Your task to perform on an android device: change text size in settings app Image 0: 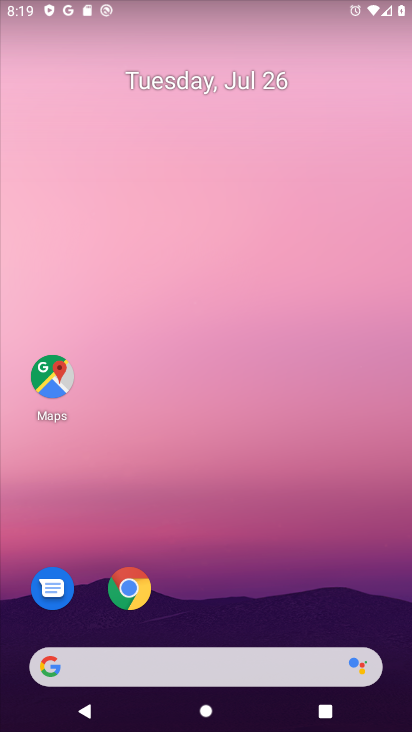
Step 0: drag from (201, 652) to (257, 257)
Your task to perform on an android device: change text size in settings app Image 1: 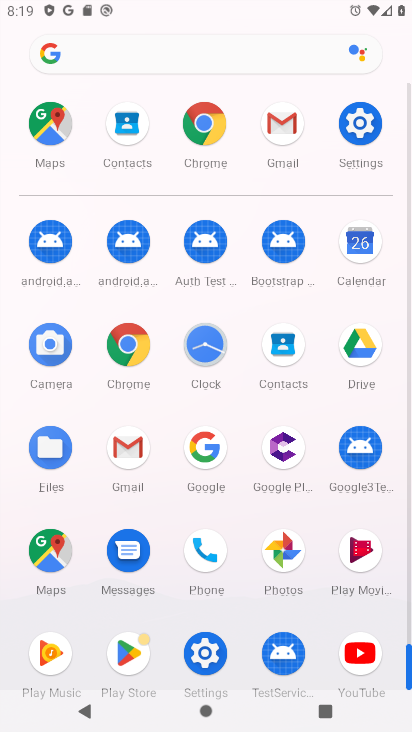
Step 1: click (366, 137)
Your task to perform on an android device: change text size in settings app Image 2: 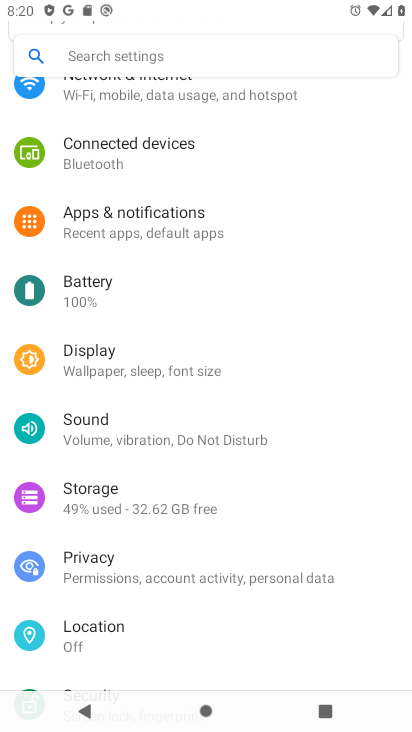
Step 2: click (93, 368)
Your task to perform on an android device: change text size in settings app Image 3: 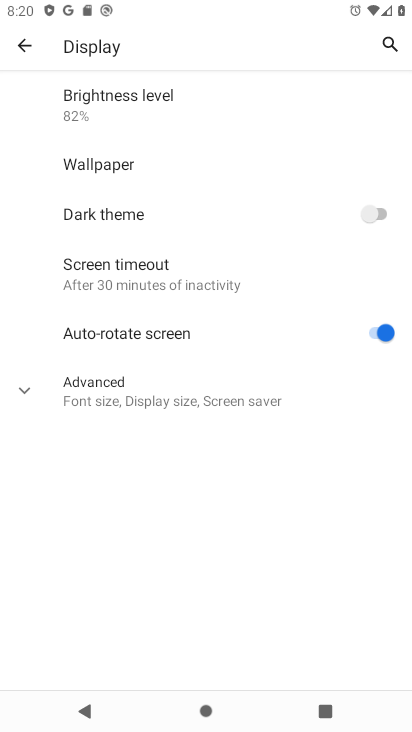
Step 3: click (132, 403)
Your task to perform on an android device: change text size in settings app Image 4: 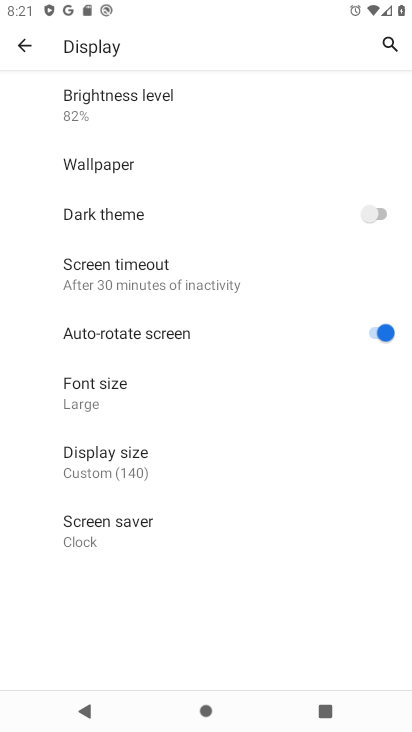
Step 4: click (88, 407)
Your task to perform on an android device: change text size in settings app Image 5: 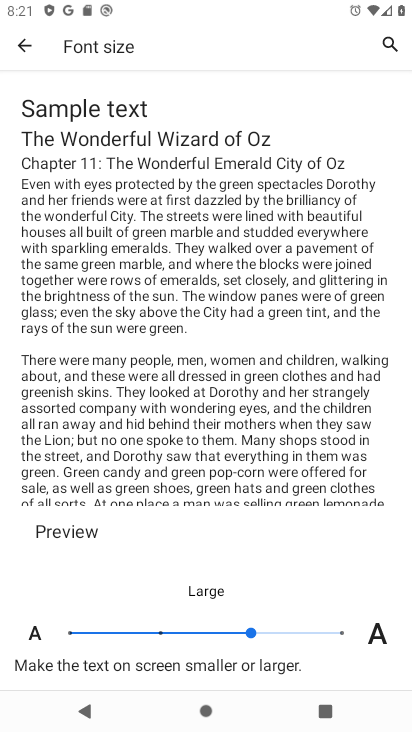
Step 5: click (331, 630)
Your task to perform on an android device: change text size in settings app Image 6: 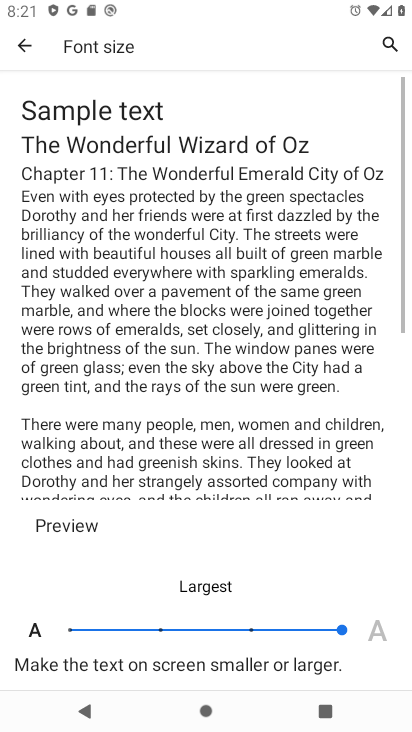
Step 6: task complete